Your task to perform on an android device: see tabs open on other devices in the chrome app Image 0: 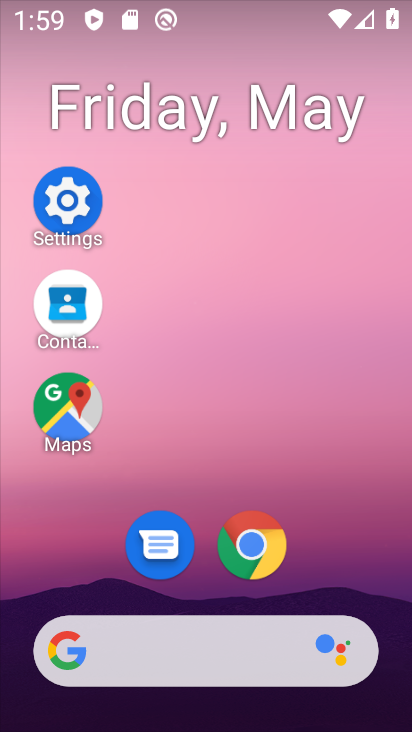
Step 0: click (277, 532)
Your task to perform on an android device: see tabs open on other devices in the chrome app Image 1: 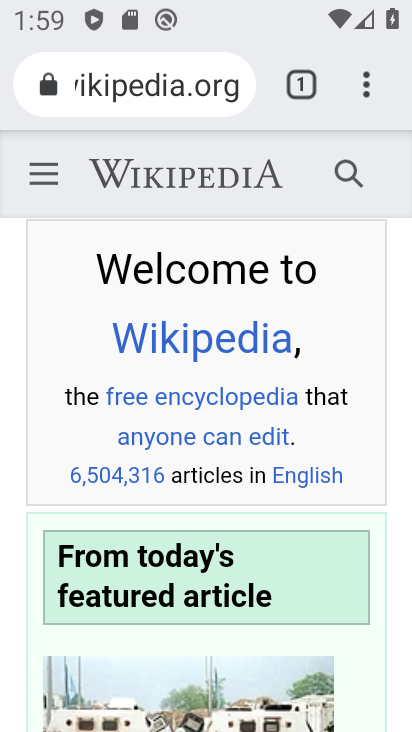
Step 1: click (364, 82)
Your task to perform on an android device: see tabs open on other devices in the chrome app Image 2: 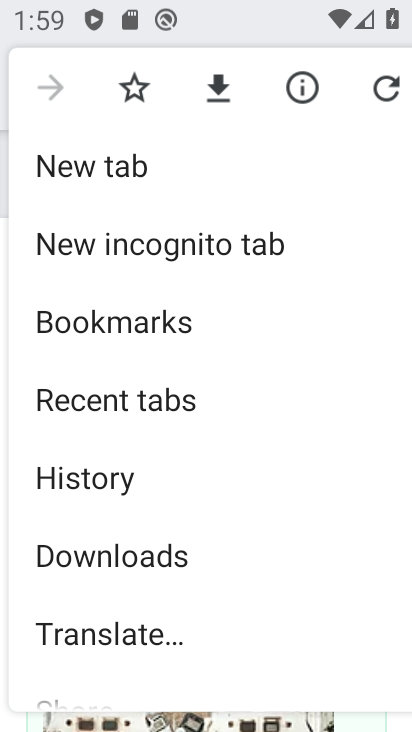
Step 2: click (163, 397)
Your task to perform on an android device: see tabs open on other devices in the chrome app Image 3: 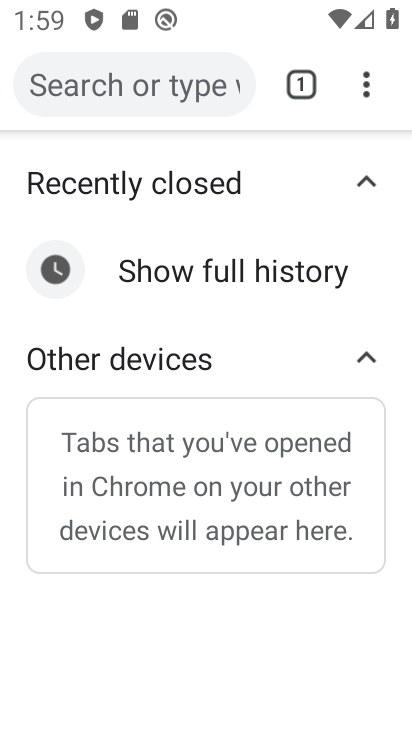
Step 3: task complete